Your task to perform on an android device: Open settings on Google Maps Image 0: 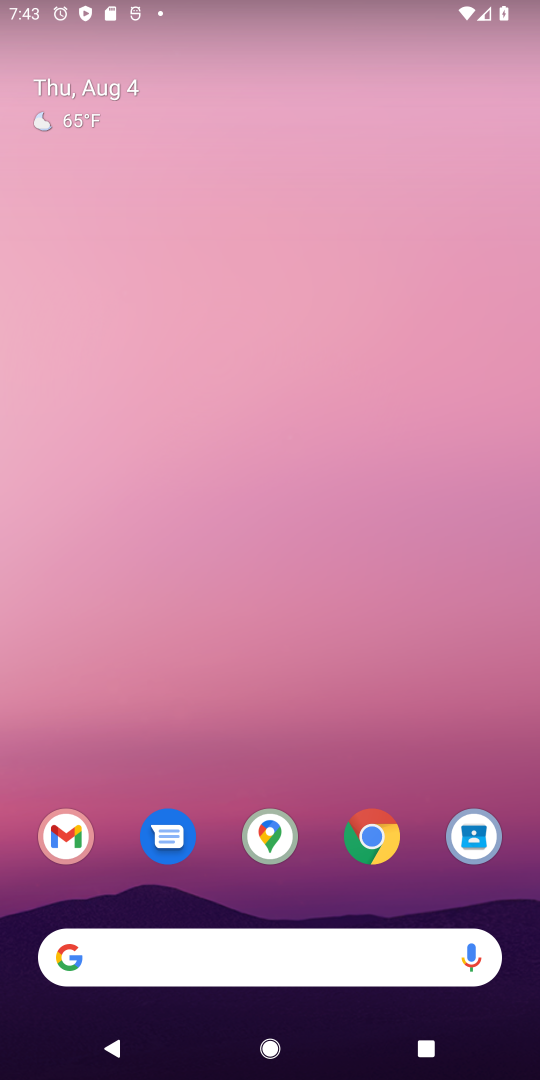
Step 0: click (259, 841)
Your task to perform on an android device: Open settings on Google Maps Image 1: 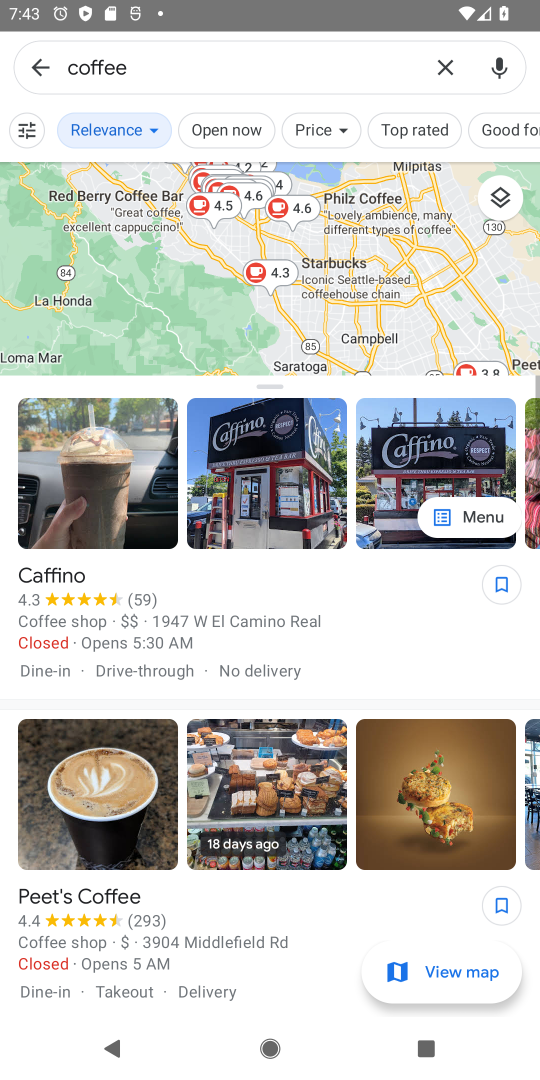
Step 1: click (37, 82)
Your task to perform on an android device: Open settings on Google Maps Image 2: 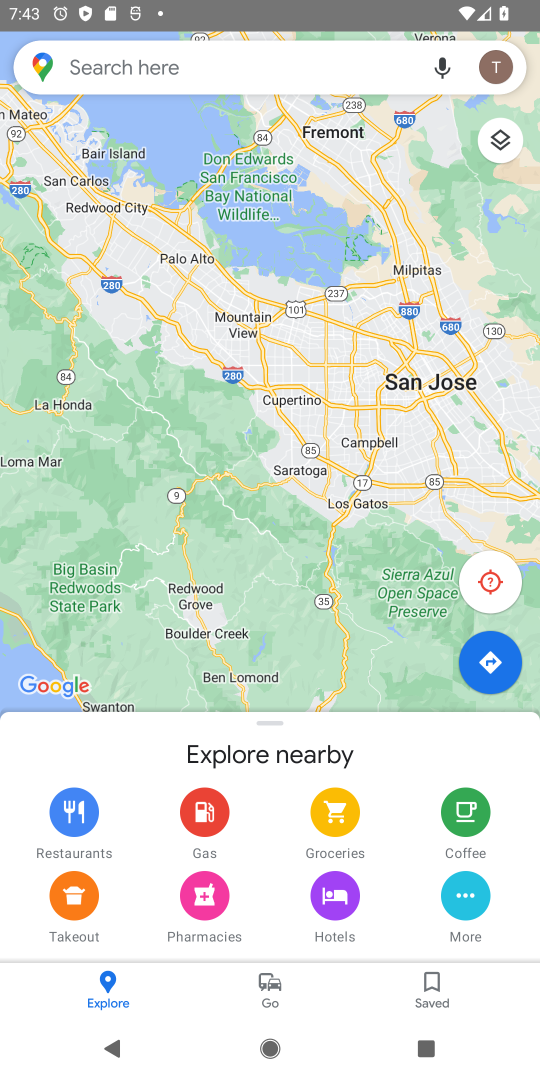
Step 2: click (487, 61)
Your task to perform on an android device: Open settings on Google Maps Image 3: 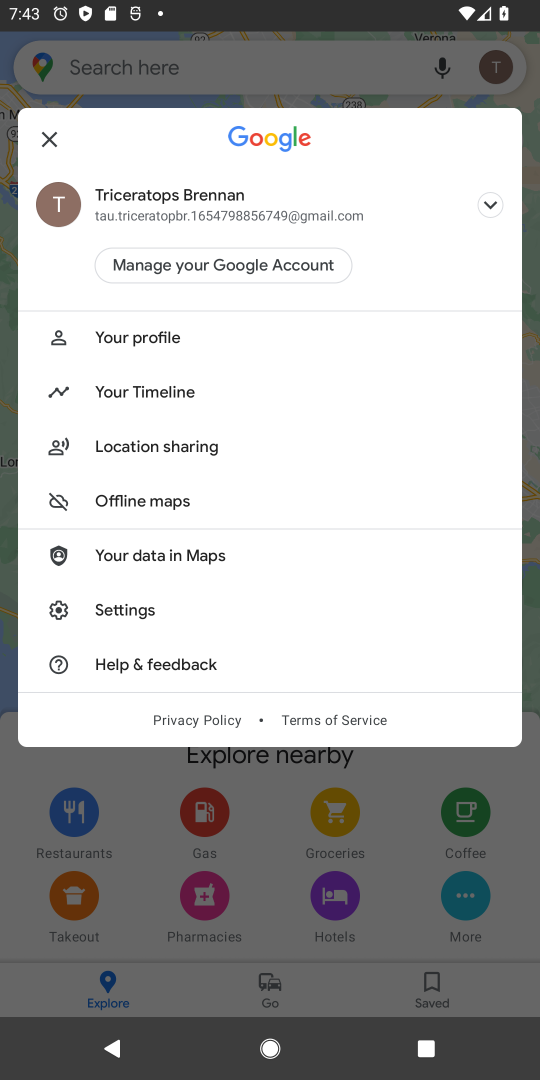
Step 3: click (124, 603)
Your task to perform on an android device: Open settings on Google Maps Image 4: 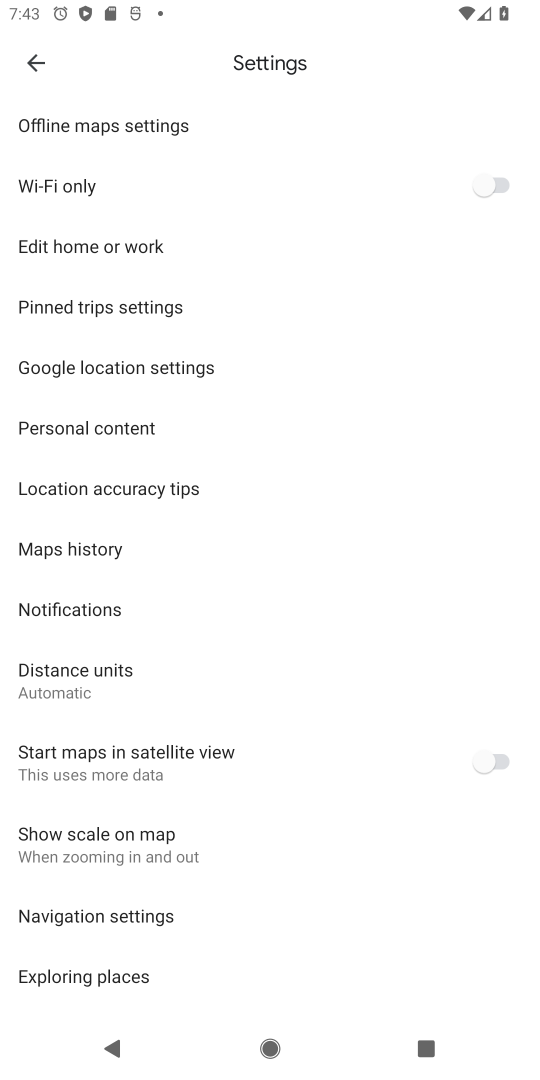
Step 4: task complete